Your task to perform on an android device: Show me popular games on the Play Store Image 0: 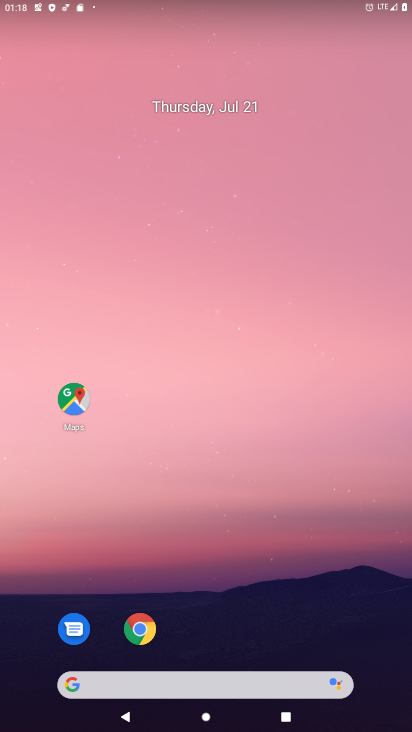
Step 0: drag from (191, 11) to (240, 4)
Your task to perform on an android device: Show me popular games on the Play Store Image 1: 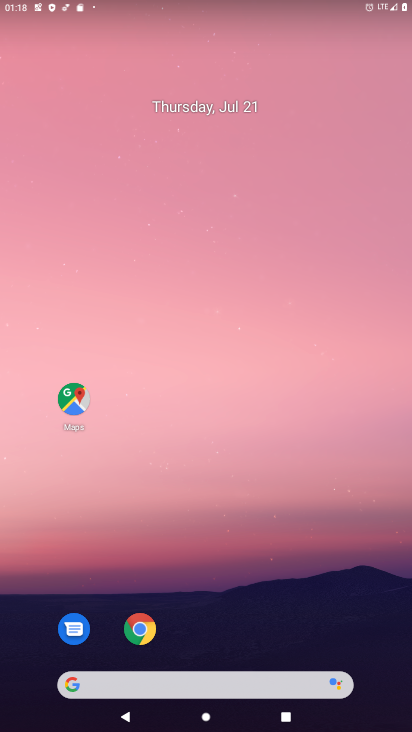
Step 1: drag from (326, 594) to (232, 67)
Your task to perform on an android device: Show me popular games on the Play Store Image 2: 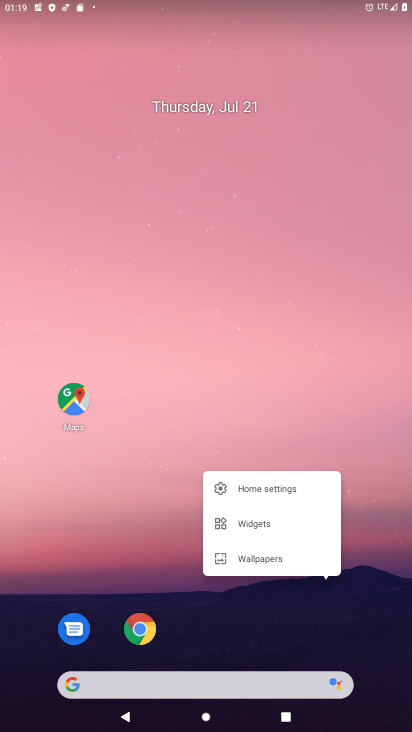
Step 2: click (263, 375)
Your task to perform on an android device: Show me popular games on the Play Store Image 3: 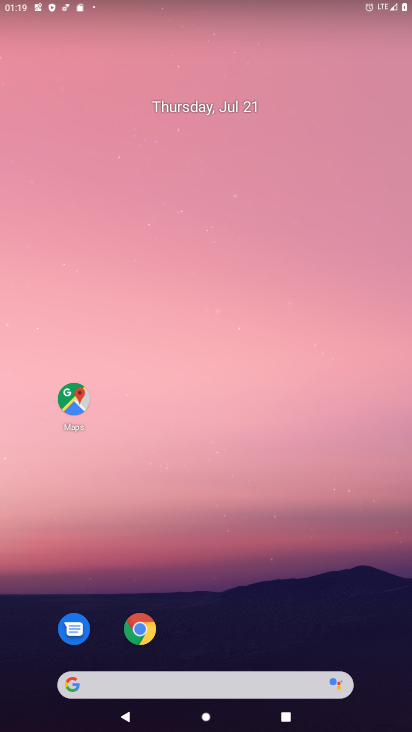
Step 3: drag from (237, 598) to (227, 32)
Your task to perform on an android device: Show me popular games on the Play Store Image 4: 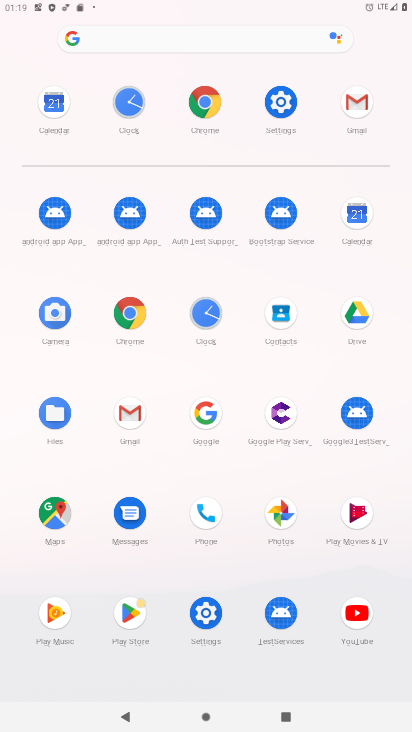
Step 4: click (131, 605)
Your task to perform on an android device: Show me popular games on the Play Store Image 5: 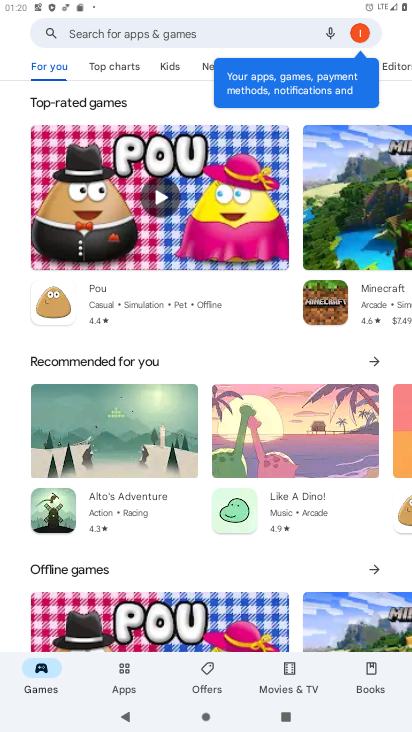
Step 5: drag from (206, 505) to (231, 100)
Your task to perform on an android device: Show me popular games on the Play Store Image 6: 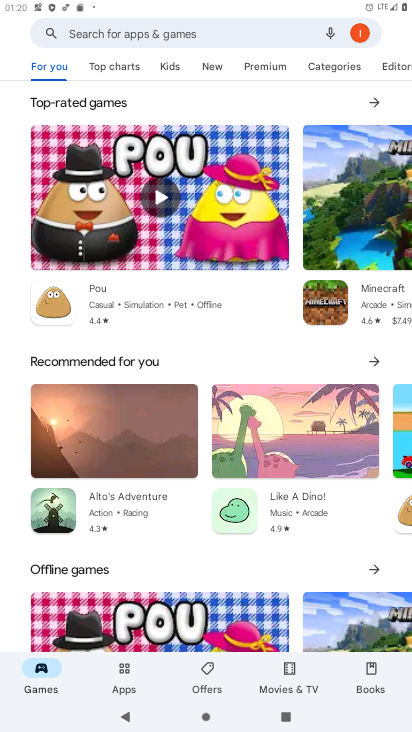
Step 6: drag from (291, 248) to (318, 82)
Your task to perform on an android device: Show me popular games on the Play Store Image 7: 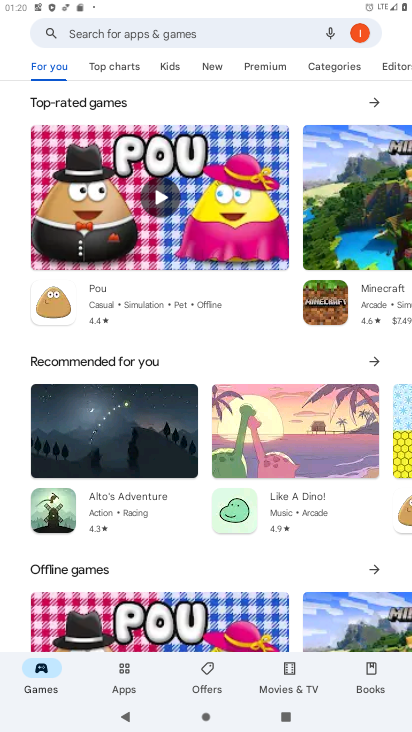
Step 7: drag from (280, 362) to (273, 24)
Your task to perform on an android device: Show me popular games on the Play Store Image 8: 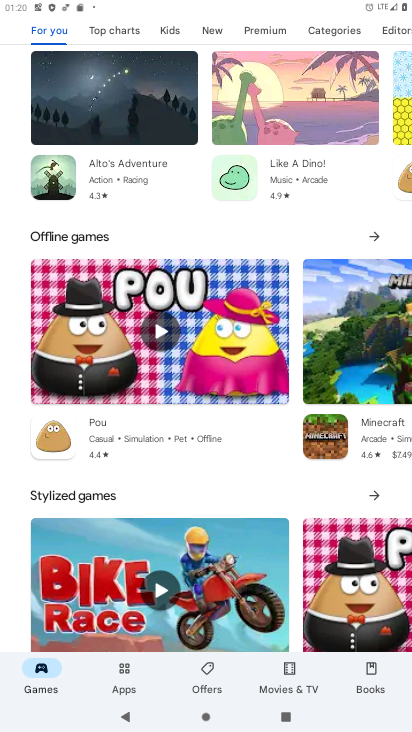
Step 8: drag from (252, 477) to (288, 13)
Your task to perform on an android device: Show me popular games on the Play Store Image 9: 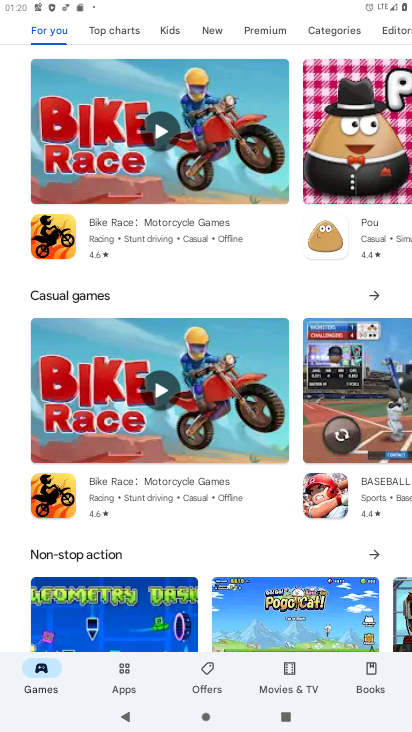
Step 9: drag from (265, 84) to (275, 51)
Your task to perform on an android device: Show me popular games on the Play Store Image 10: 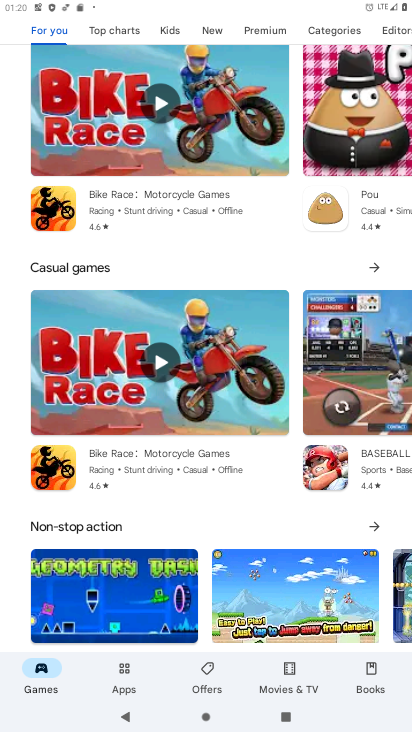
Step 10: drag from (230, 288) to (265, 36)
Your task to perform on an android device: Show me popular games on the Play Store Image 11: 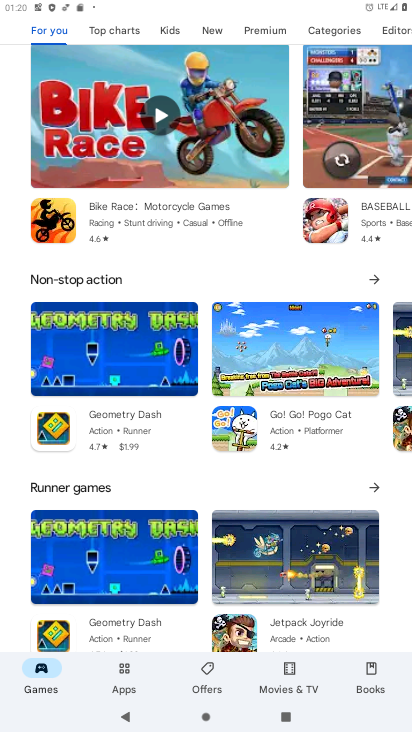
Step 11: drag from (196, 618) to (249, 52)
Your task to perform on an android device: Show me popular games on the Play Store Image 12: 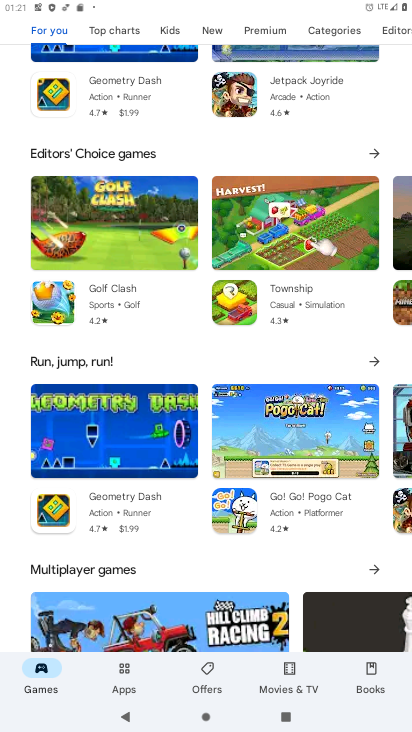
Step 12: drag from (154, 198) to (144, 1)
Your task to perform on an android device: Show me popular games on the Play Store Image 13: 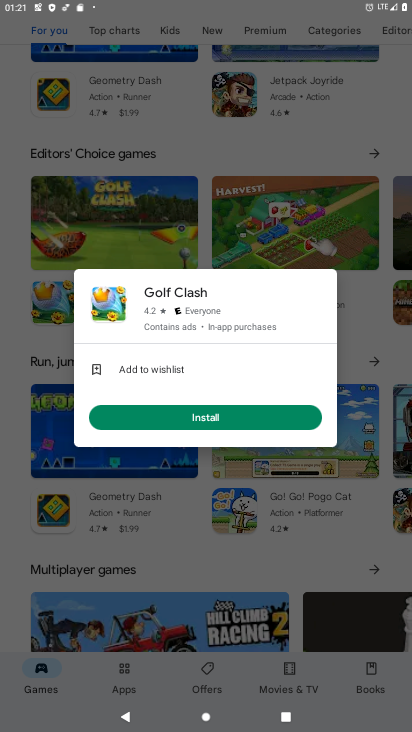
Step 13: click (335, 539)
Your task to perform on an android device: Show me popular games on the Play Store Image 14: 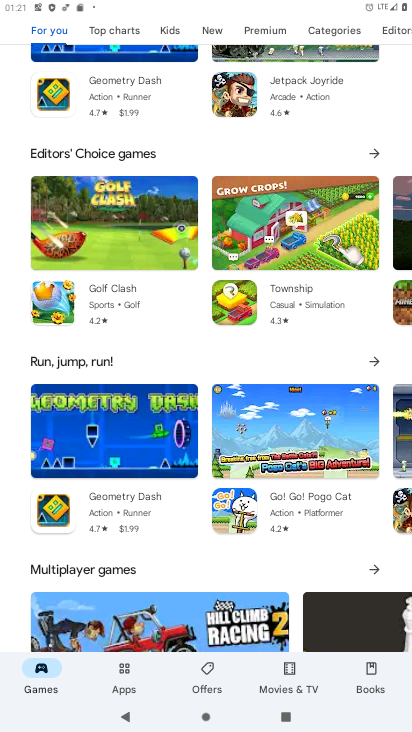
Step 14: task complete